Your task to perform on an android device: Open Chrome and go to settings Image 0: 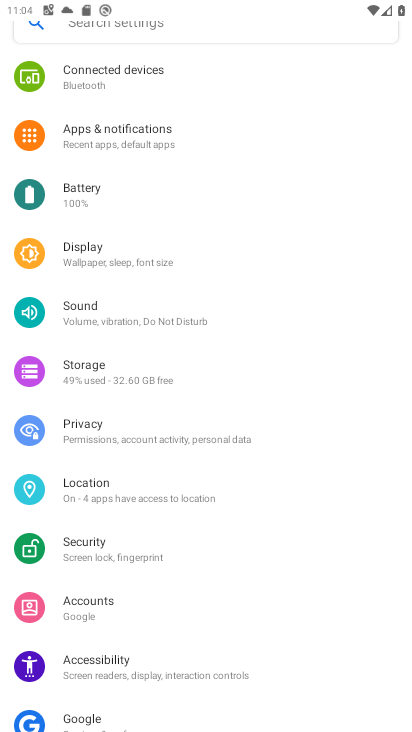
Step 0: press home button
Your task to perform on an android device: Open Chrome and go to settings Image 1: 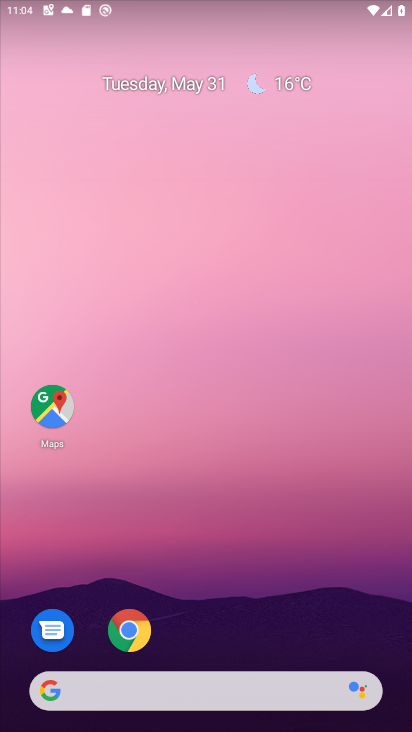
Step 1: click (124, 628)
Your task to perform on an android device: Open Chrome and go to settings Image 2: 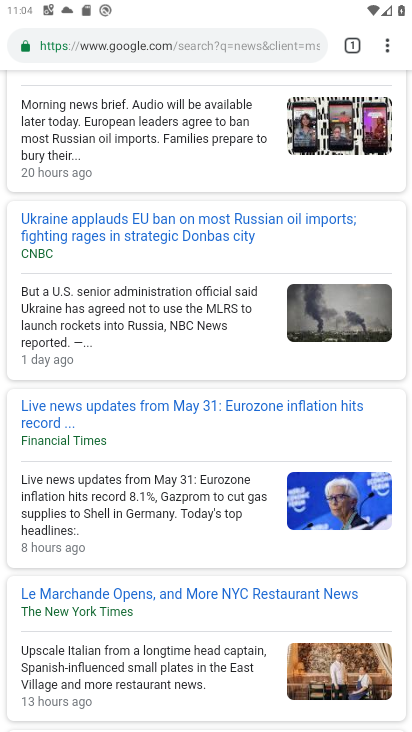
Step 2: click (383, 38)
Your task to perform on an android device: Open Chrome and go to settings Image 3: 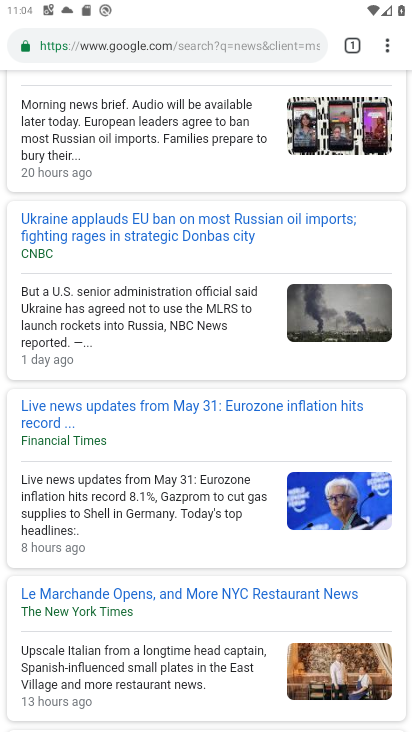
Step 3: task complete